Your task to perform on an android device: Go to eBay Image 0: 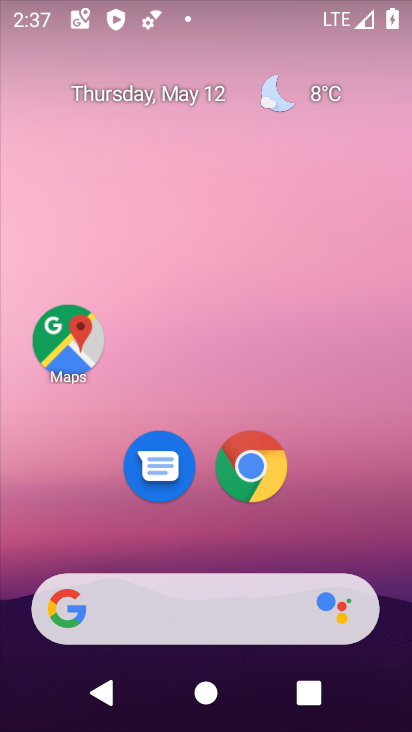
Step 0: click (239, 476)
Your task to perform on an android device: Go to eBay Image 1: 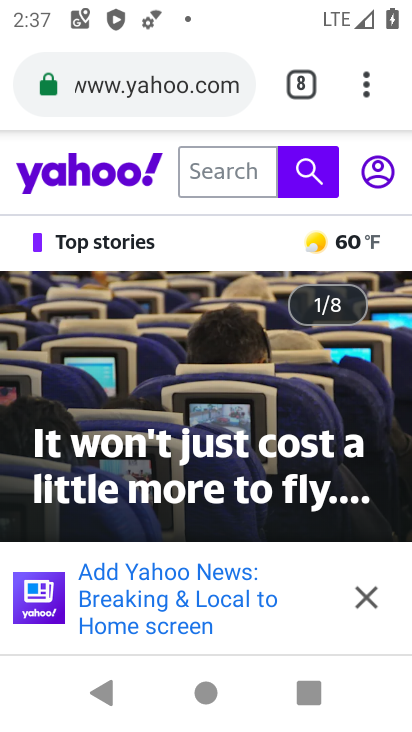
Step 1: click (301, 82)
Your task to perform on an android device: Go to eBay Image 2: 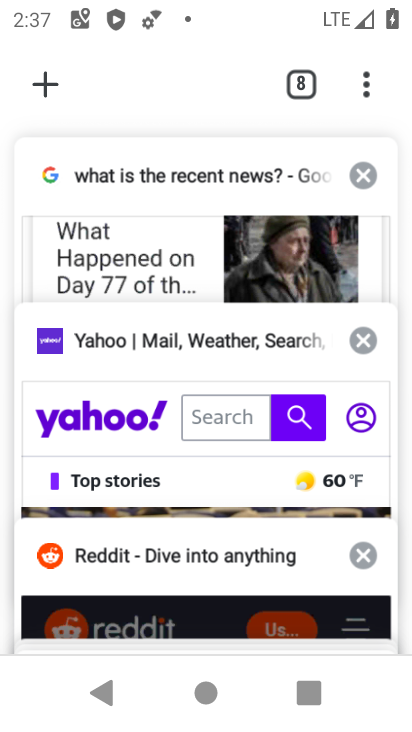
Step 2: drag from (200, 597) to (181, 200)
Your task to perform on an android device: Go to eBay Image 3: 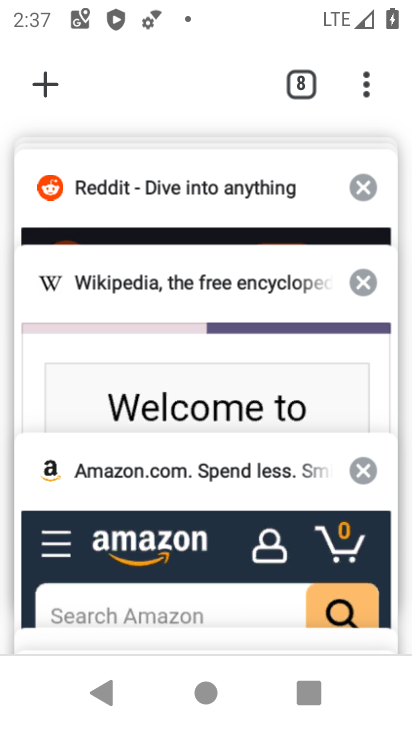
Step 3: drag from (190, 568) to (195, 259)
Your task to perform on an android device: Go to eBay Image 4: 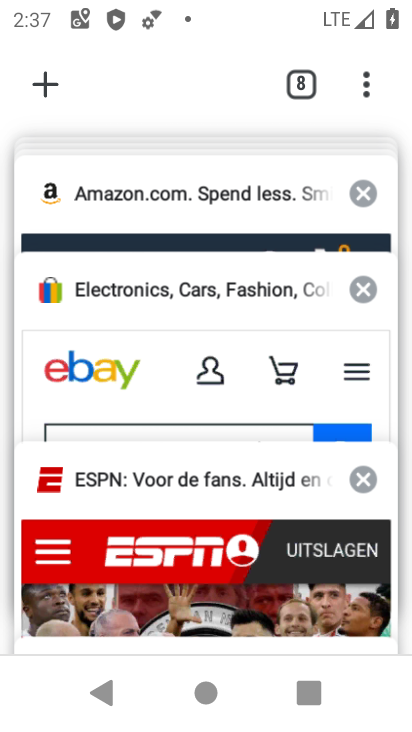
Step 4: click (133, 384)
Your task to perform on an android device: Go to eBay Image 5: 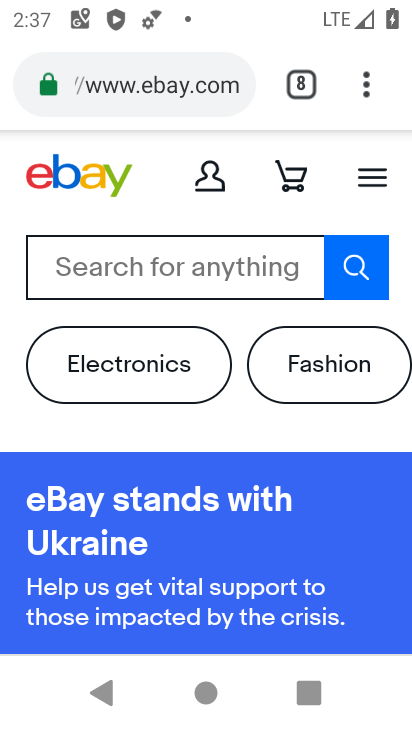
Step 5: task complete